Your task to perform on an android device: star an email in the gmail app Image 0: 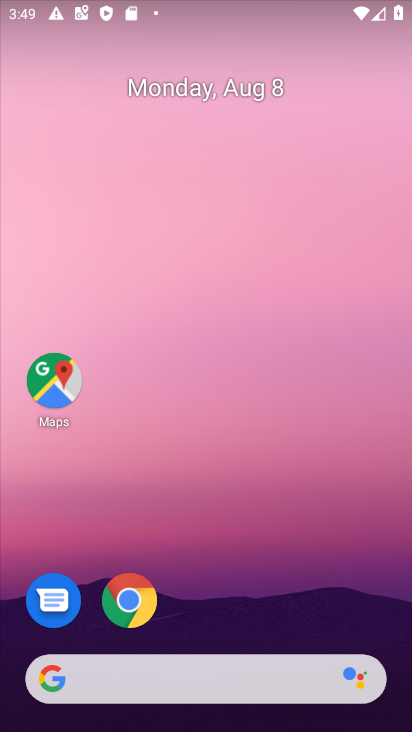
Step 0: drag from (398, 658) to (344, 164)
Your task to perform on an android device: star an email in the gmail app Image 1: 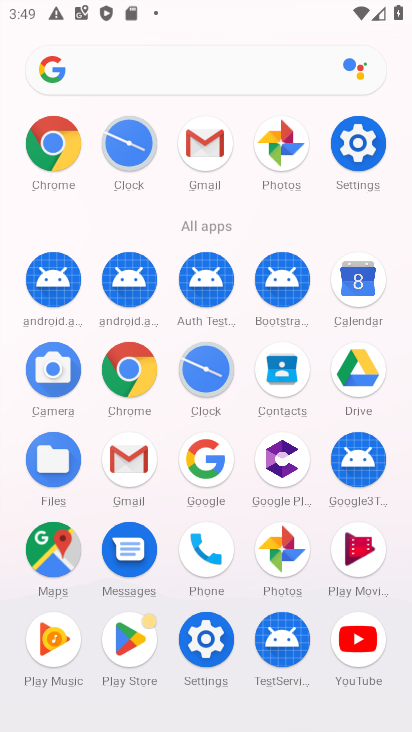
Step 1: click (116, 470)
Your task to perform on an android device: star an email in the gmail app Image 2: 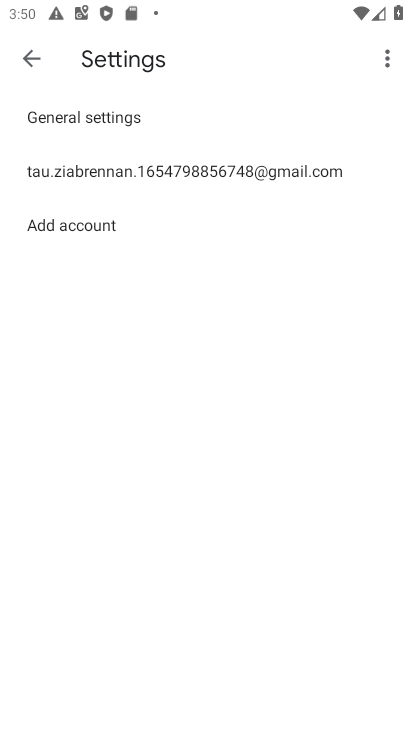
Step 2: click (34, 68)
Your task to perform on an android device: star an email in the gmail app Image 3: 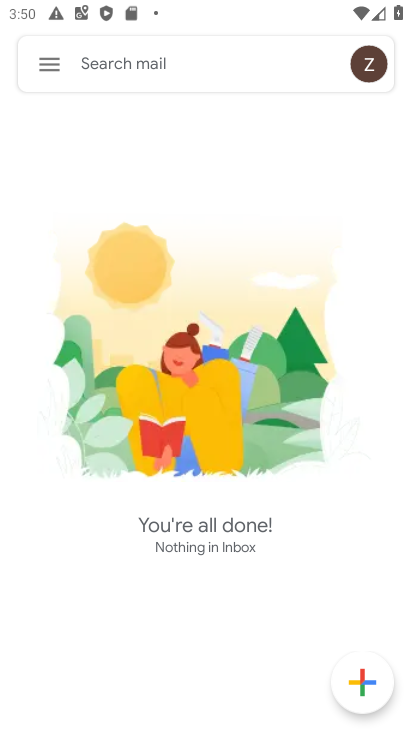
Step 3: click (53, 61)
Your task to perform on an android device: star an email in the gmail app Image 4: 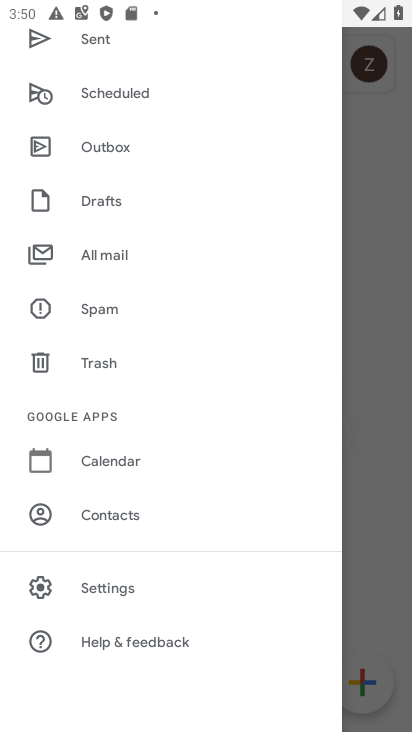
Step 4: task complete